Your task to perform on an android device: toggle airplane mode Image 0: 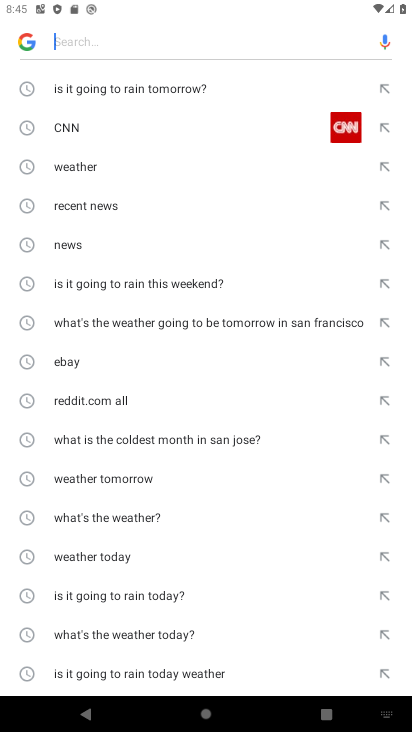
Step 0: drag from (178, 4) to (240, 623)
Your task to perform on an android device: toggle airplane mode Image 1: 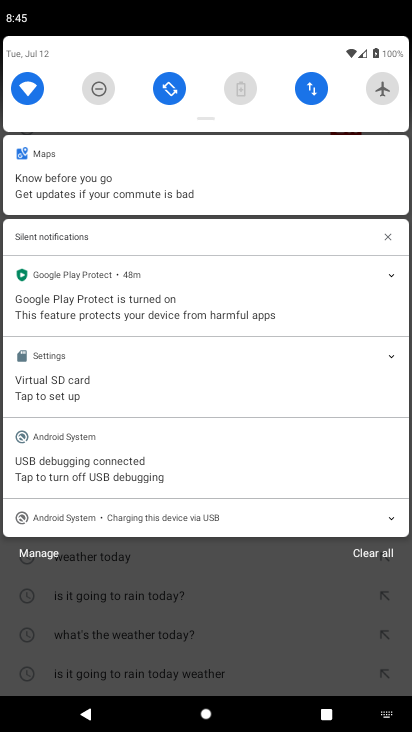
Step 1: click (386, 96)
Your task to perform on an android device: toggle airplane mode Image 2: 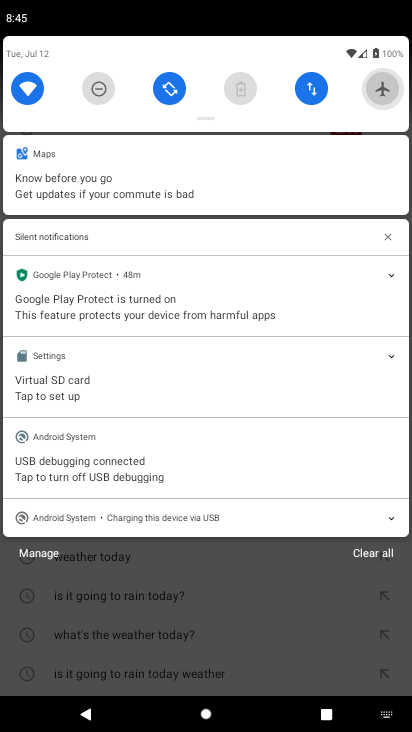
Step 2: click (386, 96)
Your task to perform on an android device: toggle airplane mode Image 3: 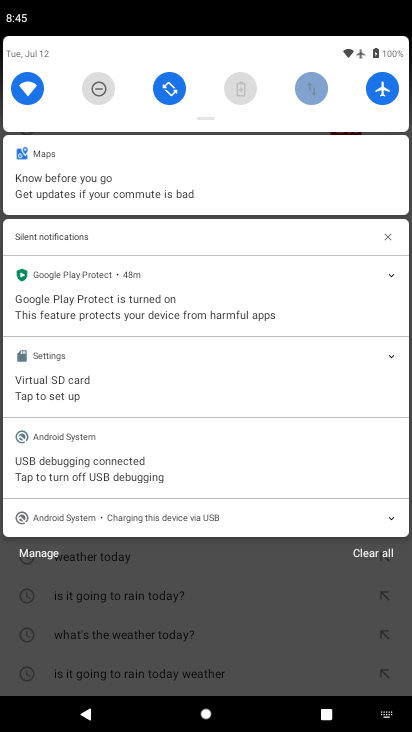
Step 3: click (386, 96)
Your task to perform on an android device: toggle airplane mode Image 4: 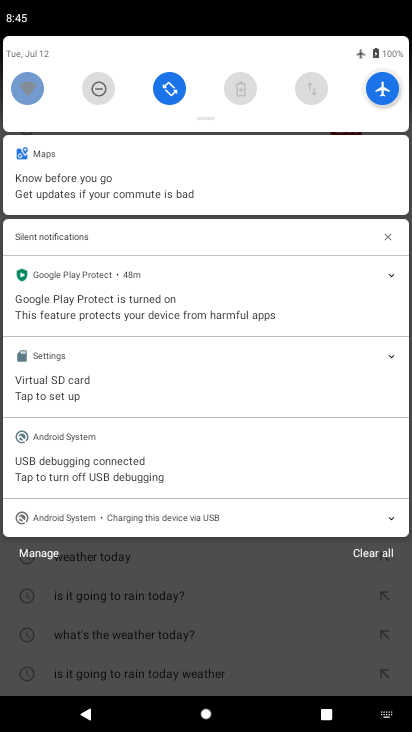
Step 4: click (386, 96)
Your task to perform on an android device: toggle airplane mode Image 5: 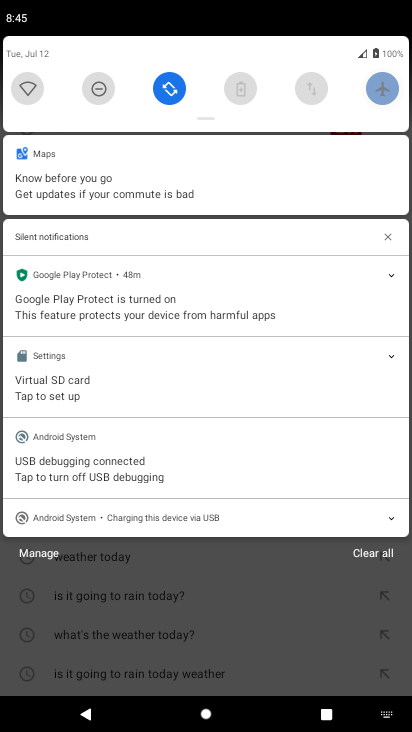
Step 5: click (386, 96)
Your task to perform on an android device: toggle airplane mode Image 6: 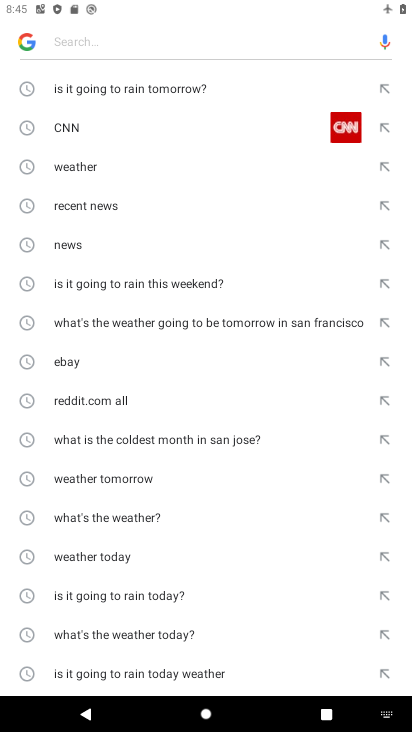
Step 6: click (386, 96)
Your task to perform on an android device: toggle airplane mode Image 7: 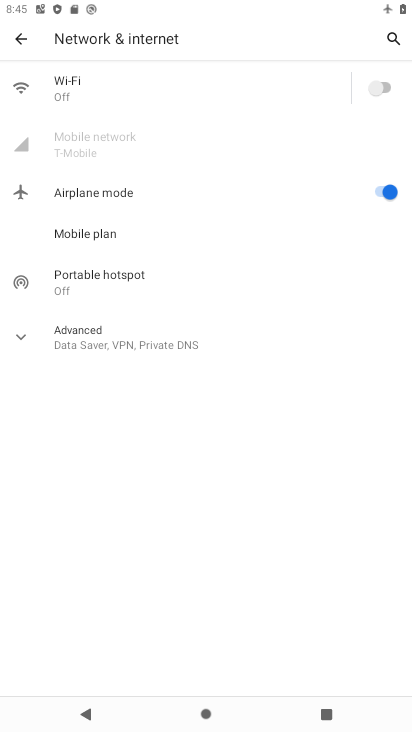
Step 7: drag from (231, 4) to (304, 555)
Your task to perform on an android device: toggle airplane mode Image 8: 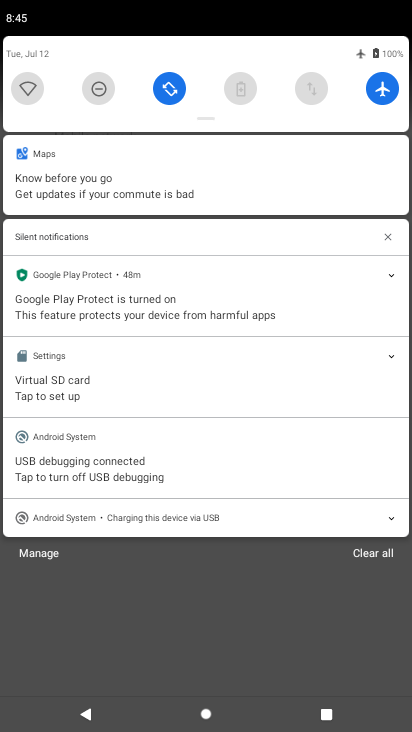
Step 8: click (374, 82)
Your task to perform on an android device: toggle airplane mode Image 9: 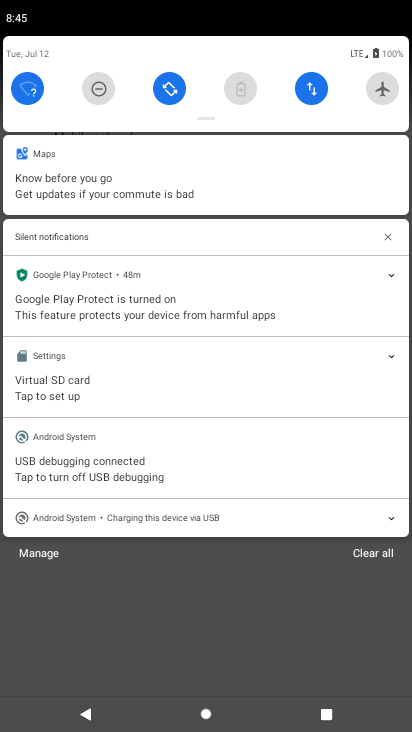
Step 9: task complete